Your task to perform on an android device: Open Chrome and go to settings Image 0: 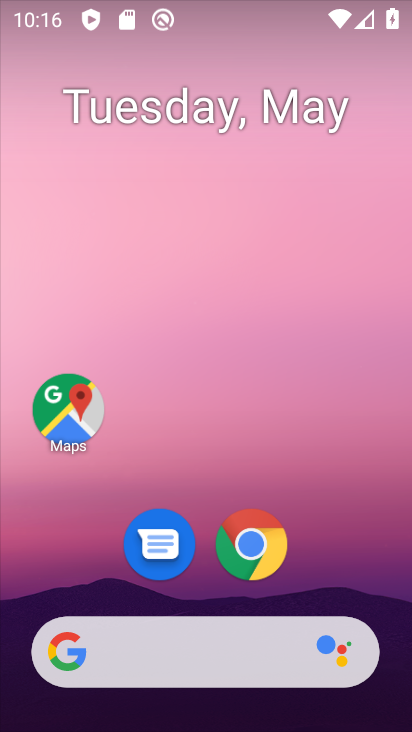
Step 0: click (259, 548)
Your task to perform on an android device: Open Chrome and go to settings Image 1: 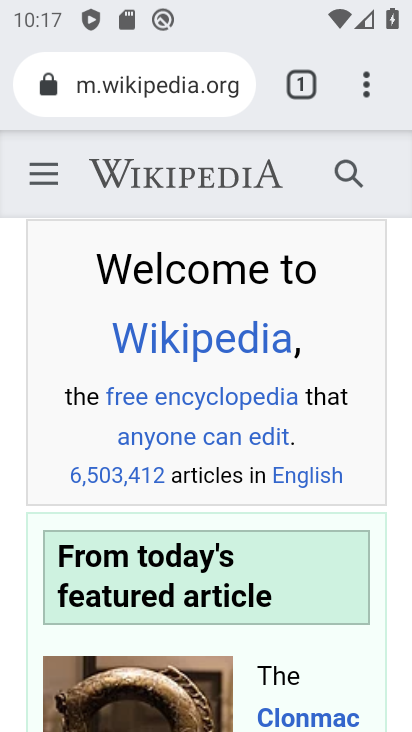
Step 1: click (377, 82)
Your task to perform on an android device: Open Chrome and go to settings Image 2: 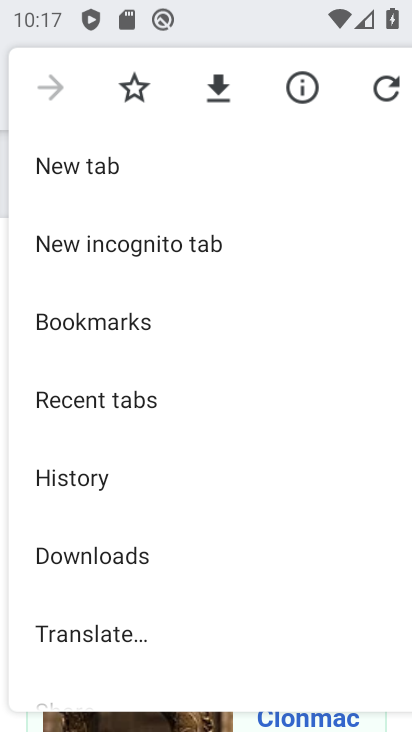
Step 2: drag from (157, 661) to (88, 128)
Your task to perform on an android device: Open Chrome and go to settings Image 3: 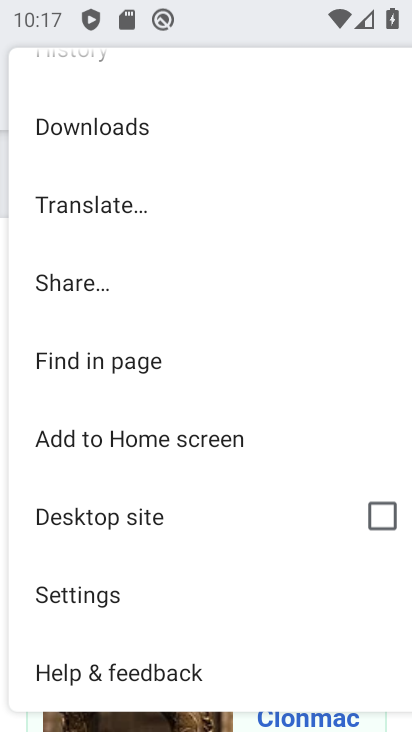
Step 3: click (80, 593)
Your task to perform on an android device: Open Chrome and go to settings Image 4: 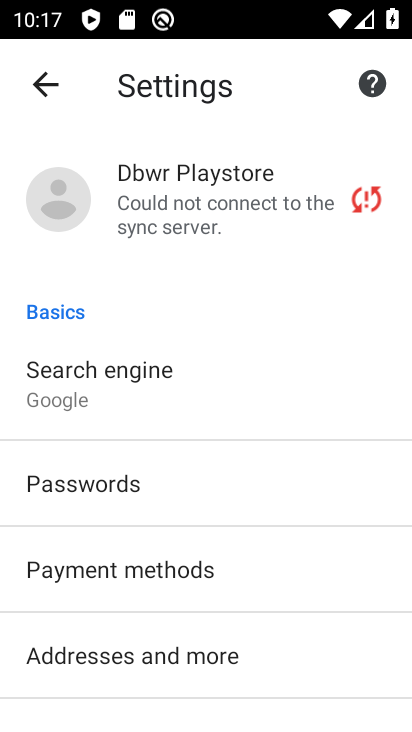
Step 4: task complete